Your task to perform on an android device: open app "LinkedIn" (install if not already installed) Image 0: 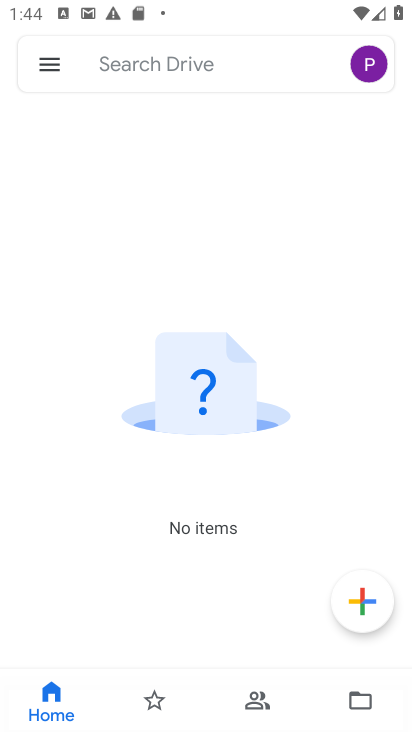
Step 0: press back button
Your task to perform on an android device: open app "LinkedIn" (install if not already installed) Image 1: 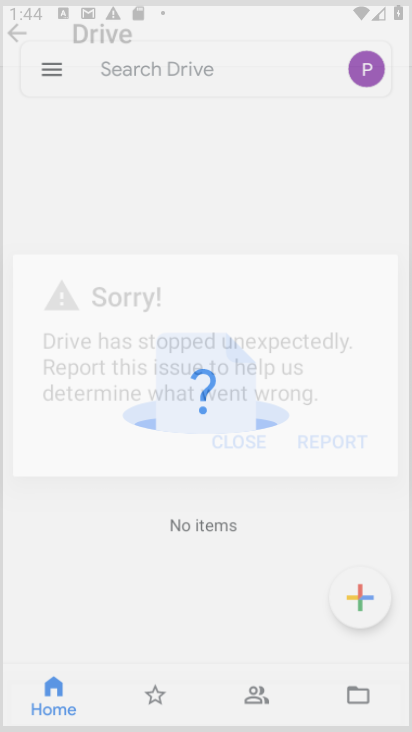
Step 1: press home button
Your task to perform on an android device: open app "LinkedIn" (install if not already installed) Image 2: 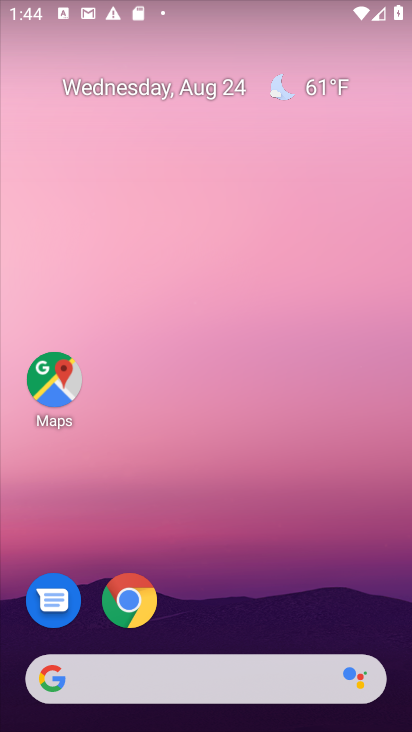
Step 2: drag from (236, 633) to (239, 82)
Your task to perform on an android device: open app "LinkedIn" (install if not already installed) Image 3: 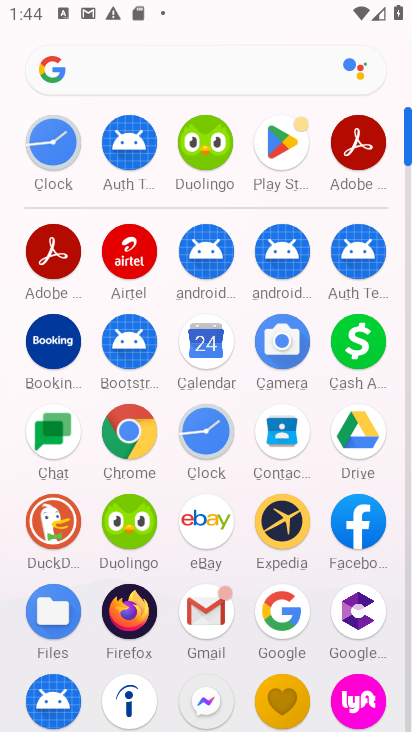
Step 3: click (278, 175)
Your task to perform on an android device: open app "LinkedIn" (install if not already installed) Image 4: 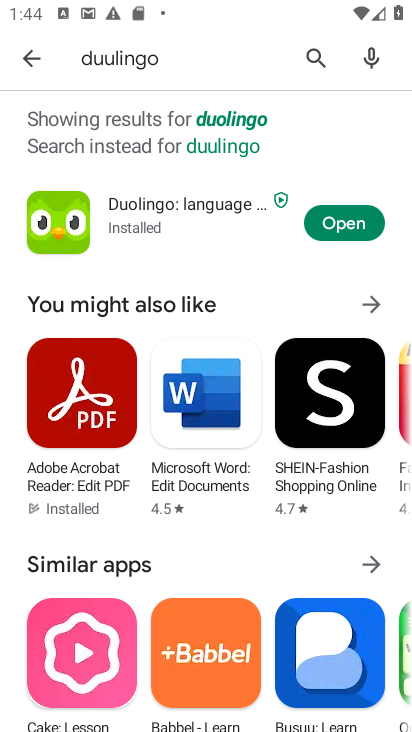
Step 4: click (317, 63)
Your task to perform on an android device: open app "LinkedIn" (install if not already installed) Image 5: 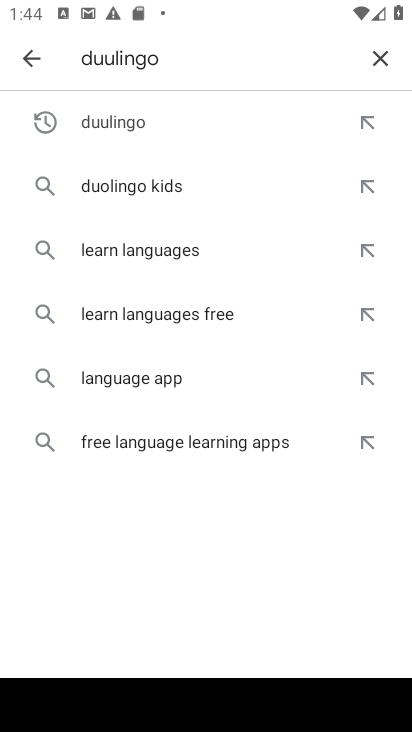
Step 5: click (386, 71)
Your task to perform on an android device: open app "LinkedIn" (install if not already installed) Image 6: 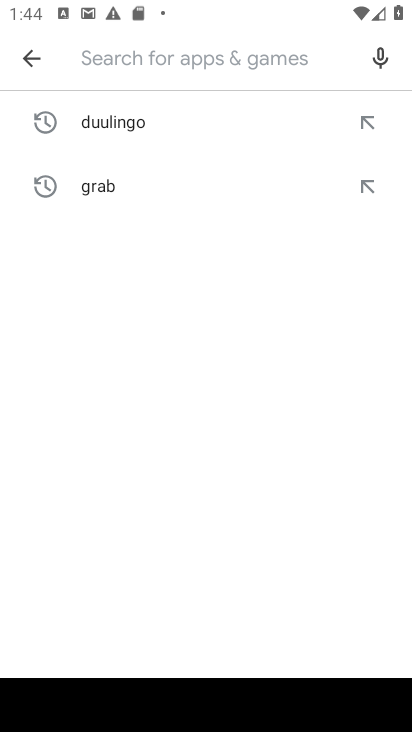
Step 6: type "linkedin"
Your task to perform on an android device: open app "LinkedIn" (install if not already installed) Image 7: 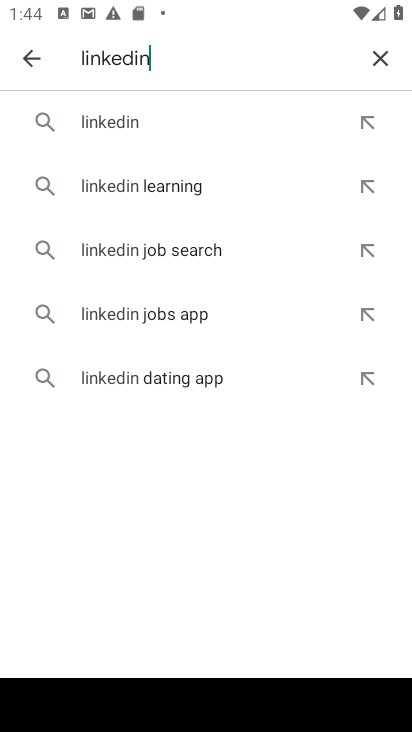
Step 7: click (92, 116)
Your task to perform on an android device: open app "LinkedIn" (install if not already installed) Image 8: 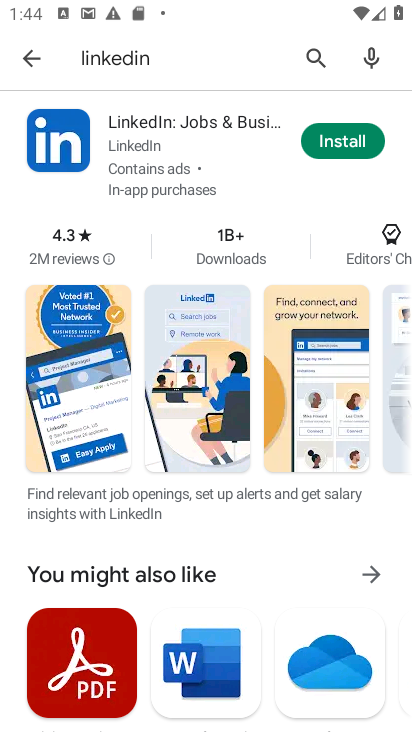
Step 8: click (311, 136)
Your task to perform on an android device: open app "LinkedIn" (install if not already installed) Image 9: 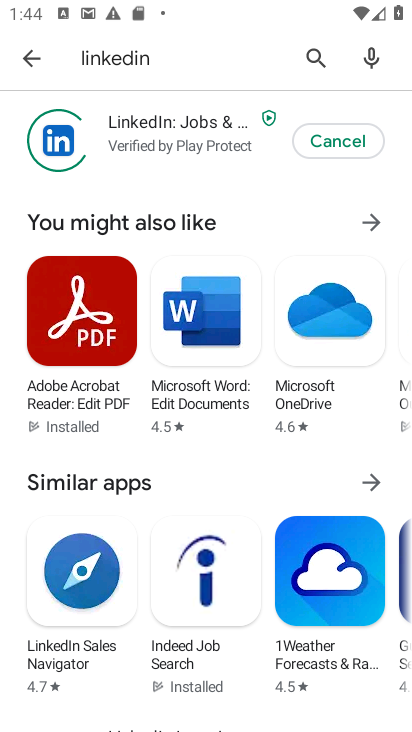
Step 9: task complete